Your task to perform on an android device: turn off sleep mode Image 0: 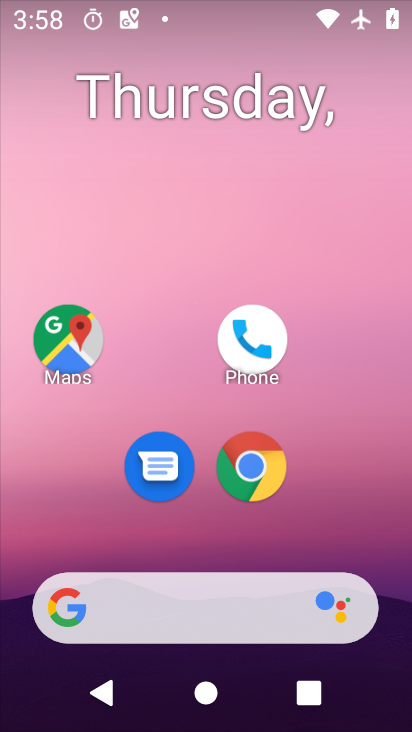
Step 0: drag from (202, 546) to (256, 113)
Your task to perform on an android device: turn off sleep mode Image 1: 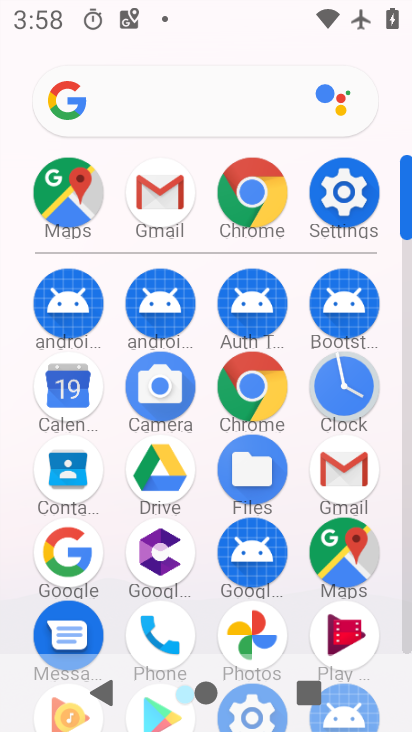
Step 1: click (342, 187)
Your task to perform on an android device: turn off sleep mode Image 2: 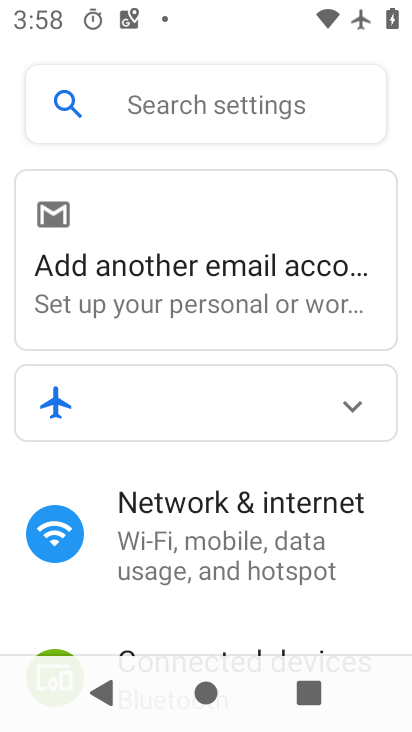
Step 2: drag from (198, 581) to (269, 81)
Your task to perform on an android device: turn off sleep mode Image 3: 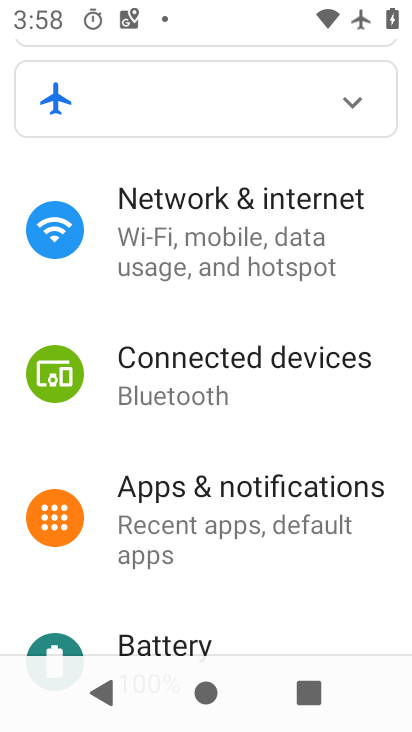
Step 3: click (200, 499)
Your task to perform on an android device: turn off sleep mode Image 4: 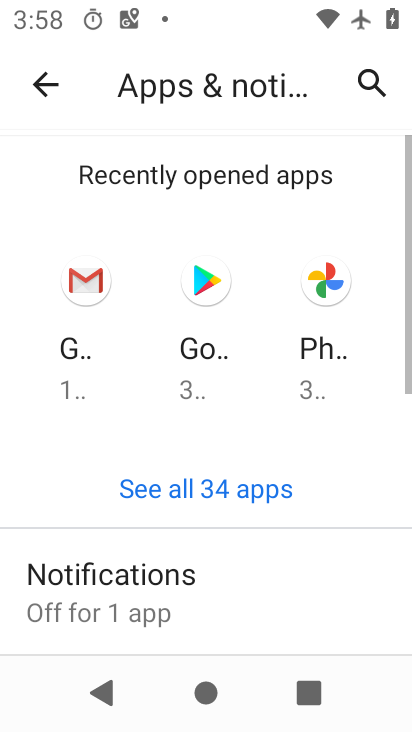
Step 4: drag from (217, 571) to (239, 194)
Your task to perform on an android device: turn off sleep mode Image 5: 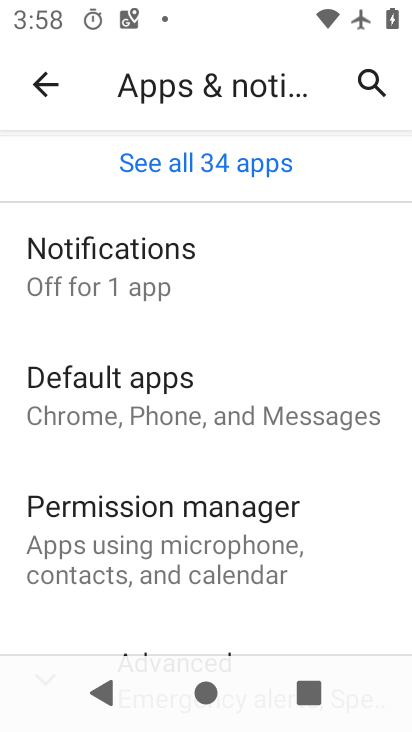
Step 5: click (189, 260)
Your task to perform on an android device: turn off sleep mode Image 6: 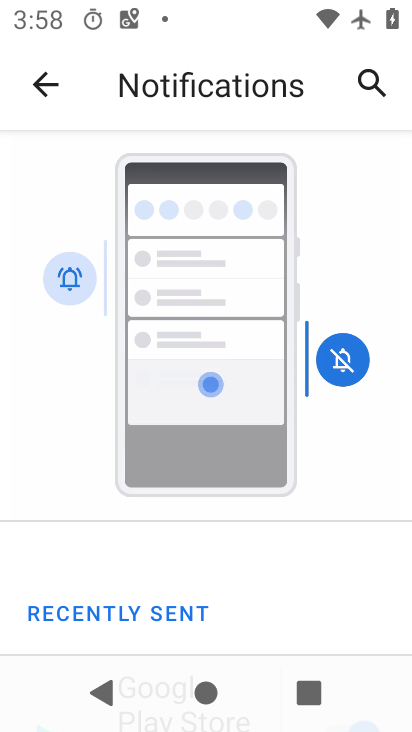
Step 6: click (48, 92)
Your task to perform on an android device: turn off sleep mode Image 7: 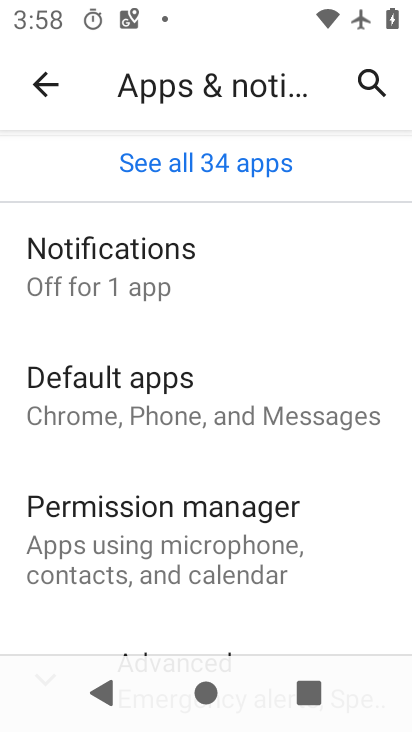
Step 7: click (47, 92)
Your task to perform on an android device: turn off sleep mode Image 8: 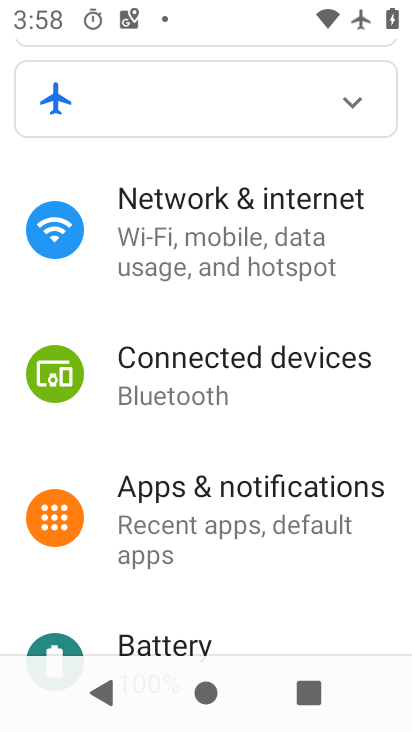
Step 8: drag from (227, 605) to (257, 102)
Your task to perform on an android device: turn off sleep mode Image 9: 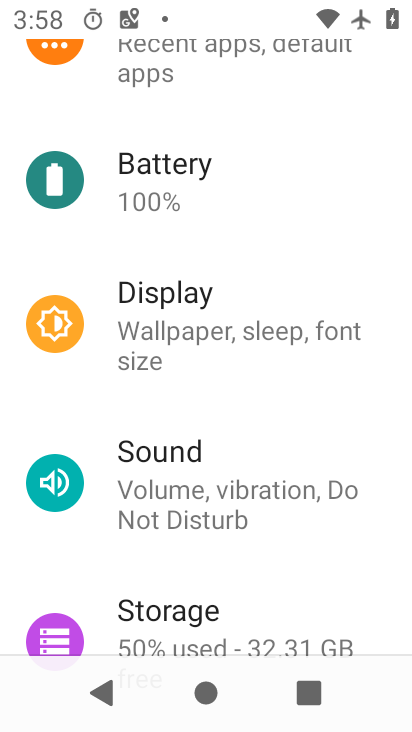
Step 9: click (190, 341)
Your task to perform on an android device: turn off sleep mode Image 10: 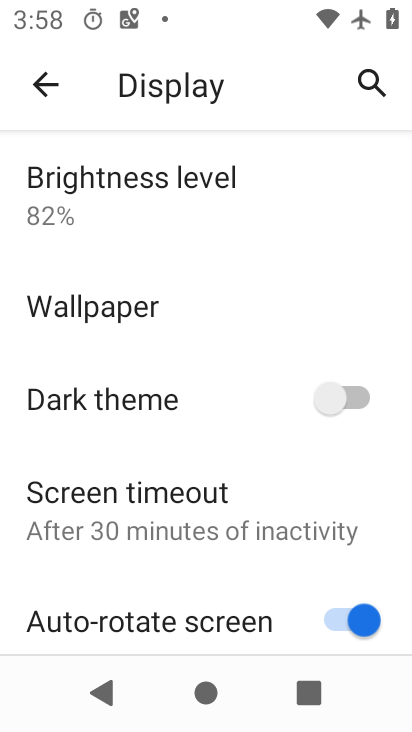
Step 10: drag from (182, 574) to (235, 259)
Your task to perform on an android device: turn off sleep mode Image 11: 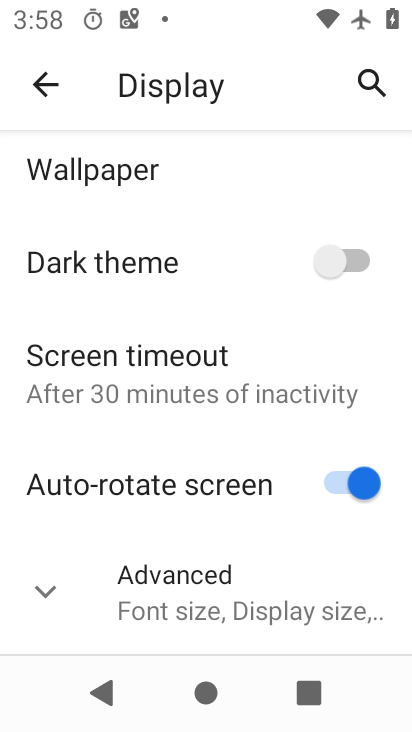
Step 11: click (161, 372)
Your task to perform on an android device: turn off sleep mode Image 12: 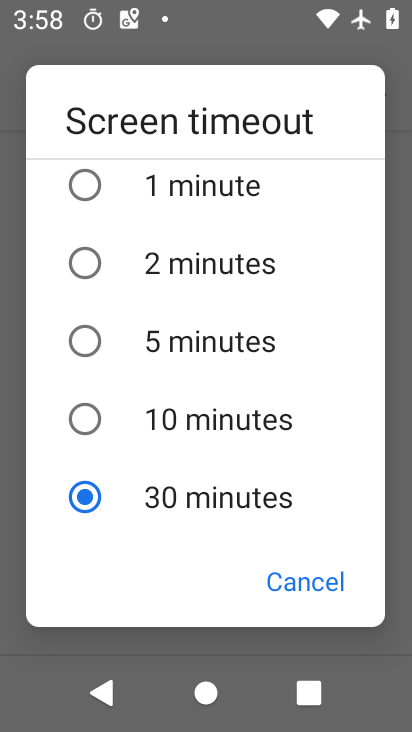
Step 12: task complete